Your task to perform on an android device: change alarm snooze length Image 0: 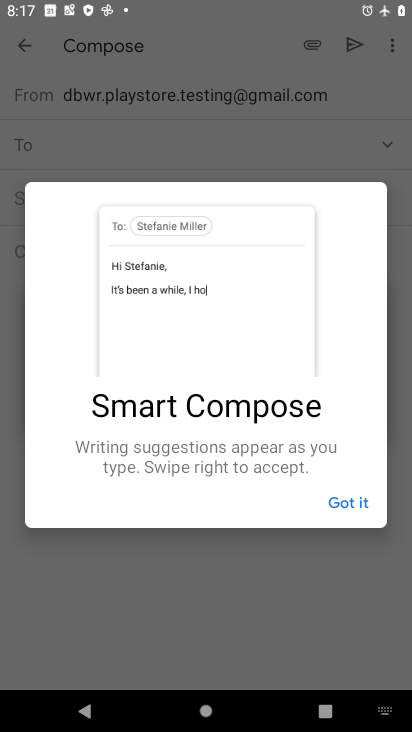
Step 0: press home button
Your task to perform on an android device: change alarm snooze length Image 1: 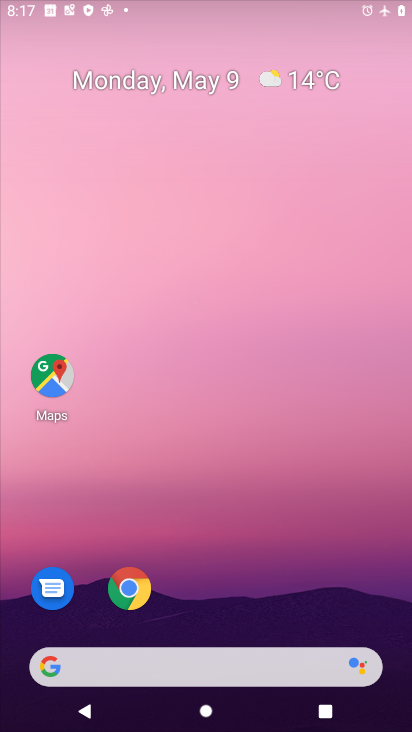
Step 1: drag from (328, 614) to (212, 61)
Your task to perform on an android device: change alarm snooze length Image 2: 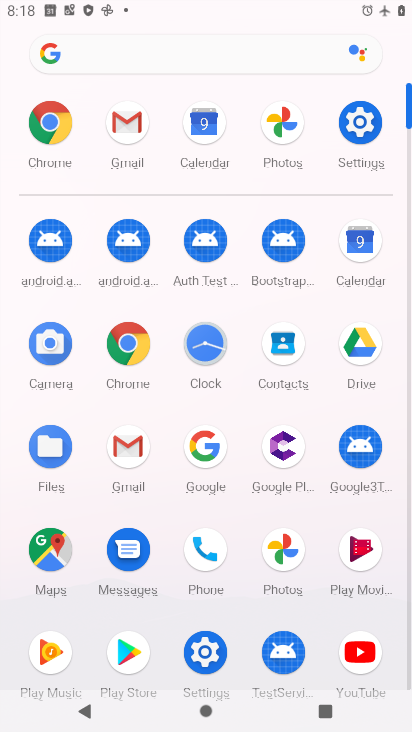
Step 2: click (210, 363)
Your task to perform on an android device: change alarm snooze length Image 3: 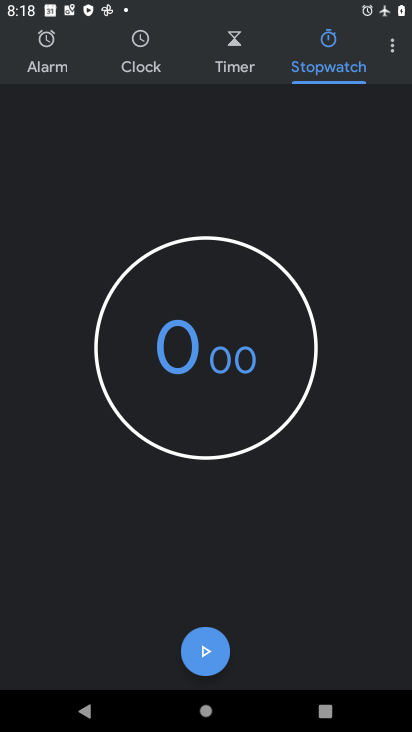
Step 3: click (383, 50)
Your task to perform on an android device: change alarm snooze length Image 4: 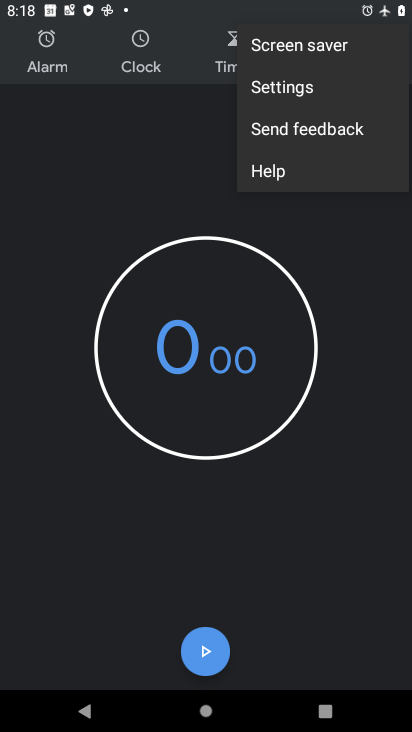
Step 4: click (307, 103)
Your task to perform on an android device: change alarm snooze length Image 5: 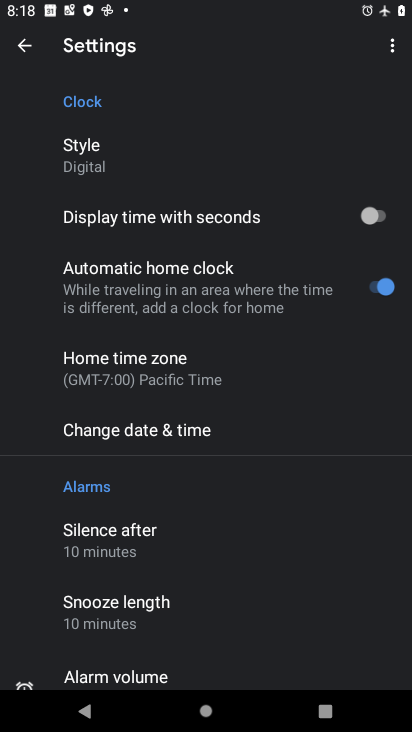
Step 5: click (165, 624)
Your task to perform on an android device: change alarm snooze length Image 6: 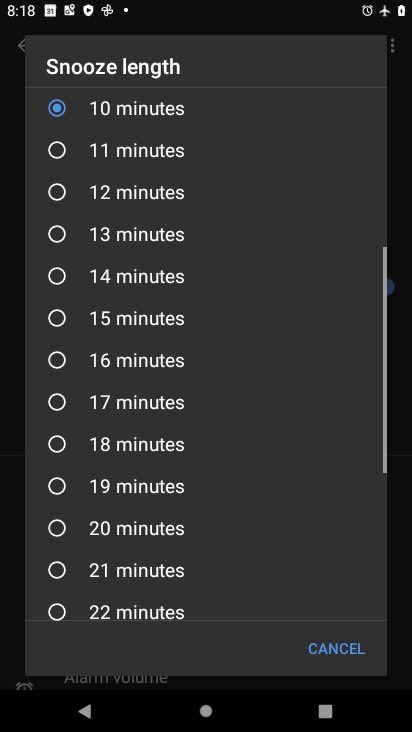
Step 6: click (112, 283)
Your task to perform on an android device: change alarm snooze length Image 7: 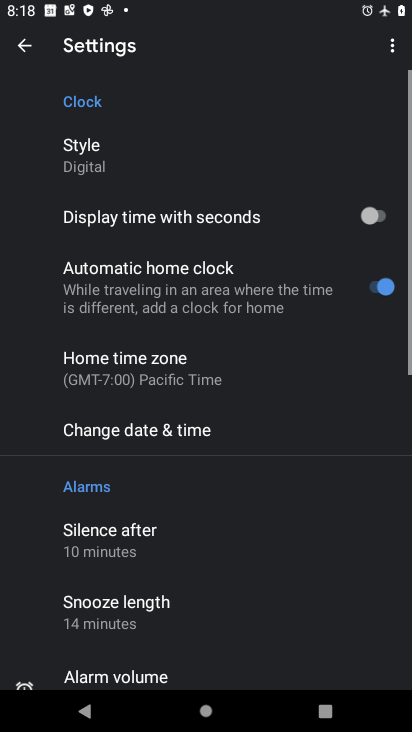
Step 7: task complete